Your task to perform on an android device: check out phone information Image 0: 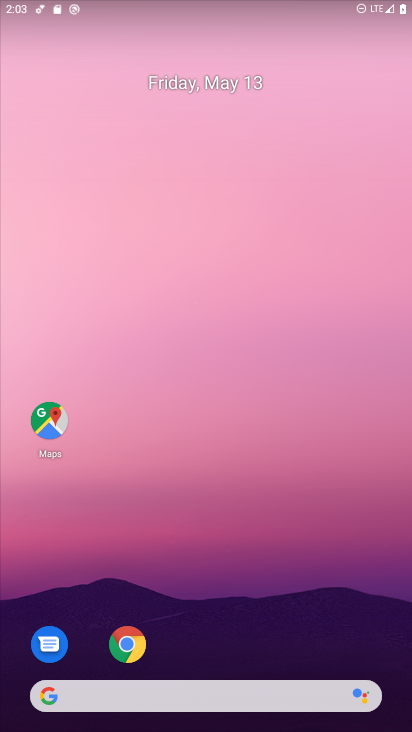
Step 0: drag from (301, 649) to (272, 74)
Your task to perform on an android device: check out phone information Image 1: 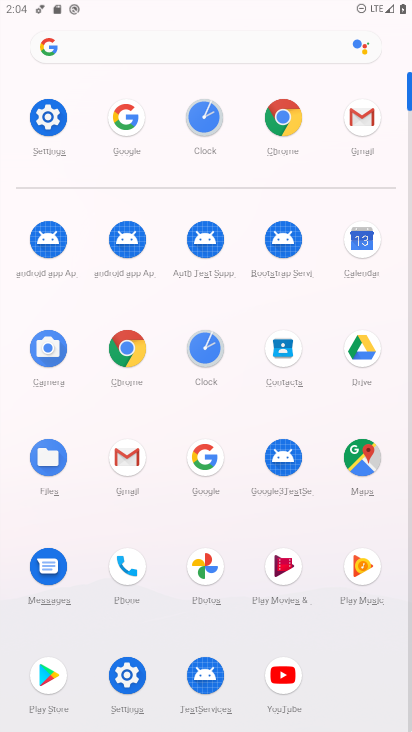
Step 1: click (120, 695)
Your task to perform on an android device: check out phone information Image 2: 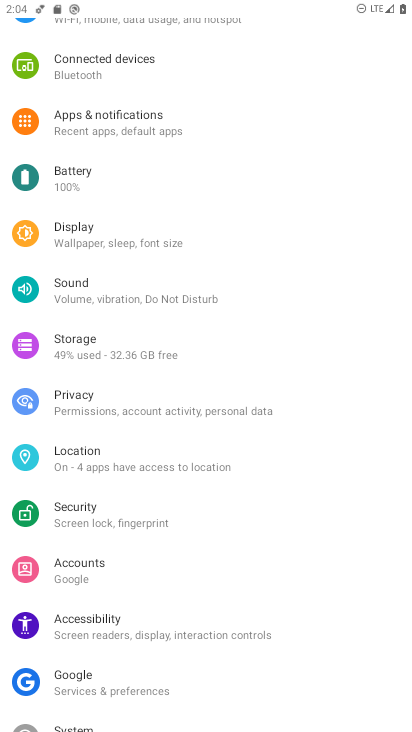
Step 2: drag from (126, 682) to (117, 293)
Your task to perform on an android device: check out phone information Image 3: 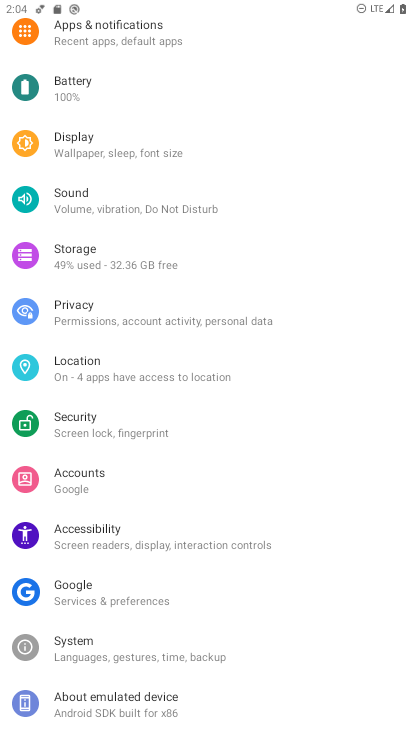
Step 3: click (150, 706)
Your task to perform on an android device: check out phone information Image 4: 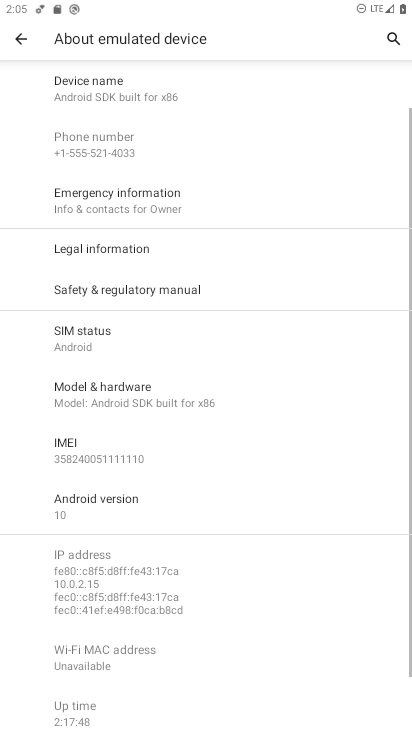
Step 4: task complete